Your task to perform on an android device: turn off priority inbox in the gmail app Image 0: 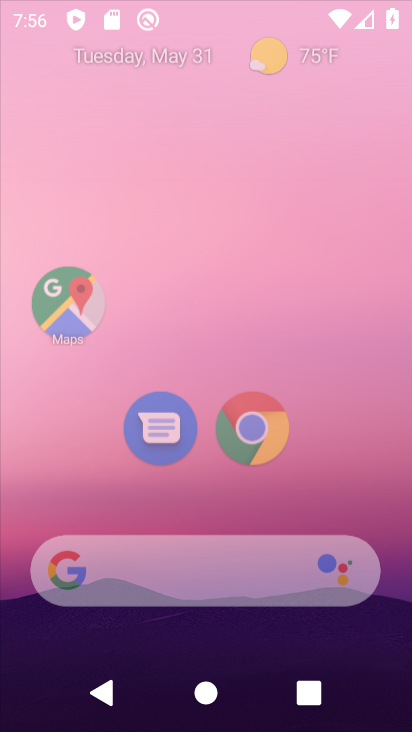
Step 0: drag from (210, 264) to (234, 79)
Your task to perform on an android device: turn off priority inbox in the gmail app Image 1: 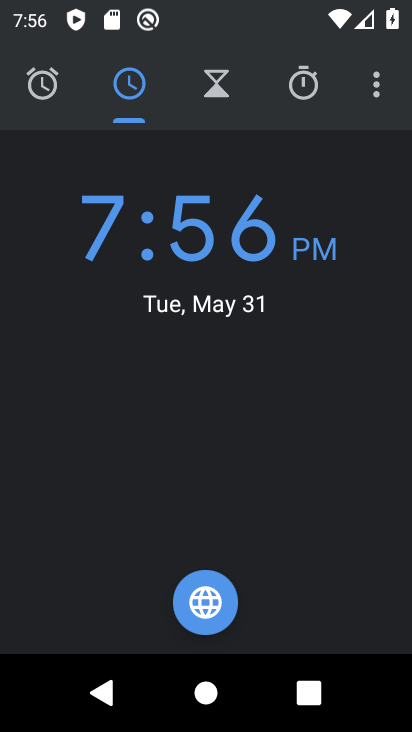
Step 1: press home button
Your task to perform on an android device: turn off priority inbox in the gmail app Image 2: 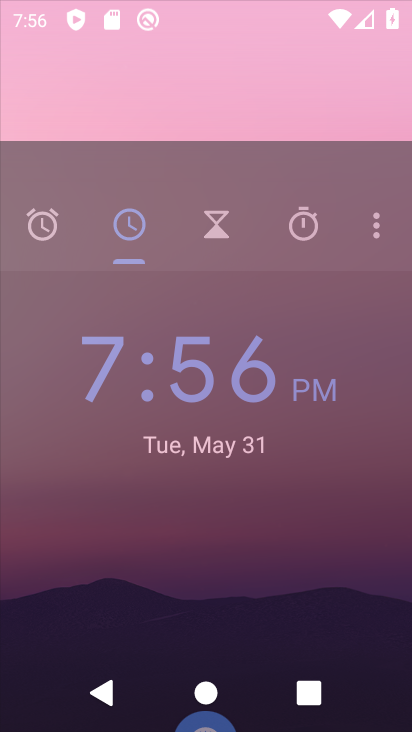
Step 2: drag from (228, 573) to (277, 81)
Your task to perform on an android device: turn off priority inbox in the gmail app Image 3: 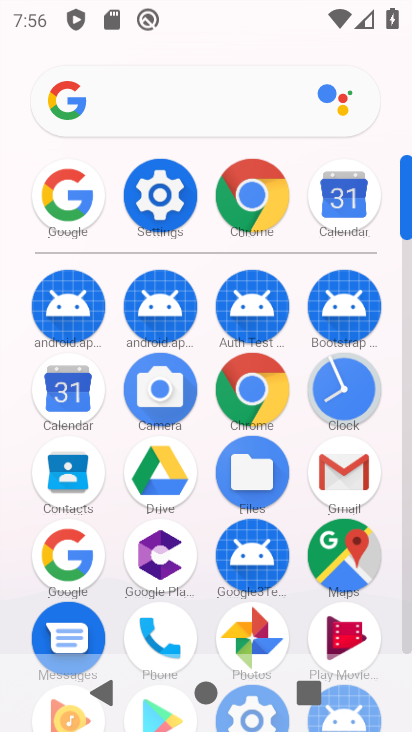
Step 3: click (335, 468)
Your task to perform on an android device: turn off priority inbox in the gmail app Image 4: 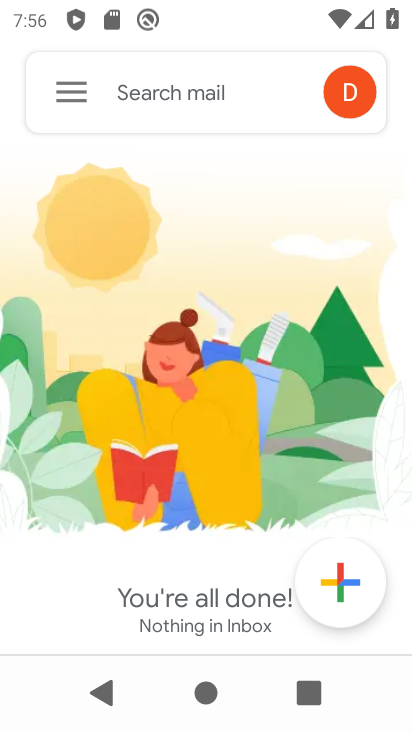
Step 4: drag from (187, 576) to (237, 246)
Your task to perform on an android device: turn off priority inbox in the gmail app Image 5: 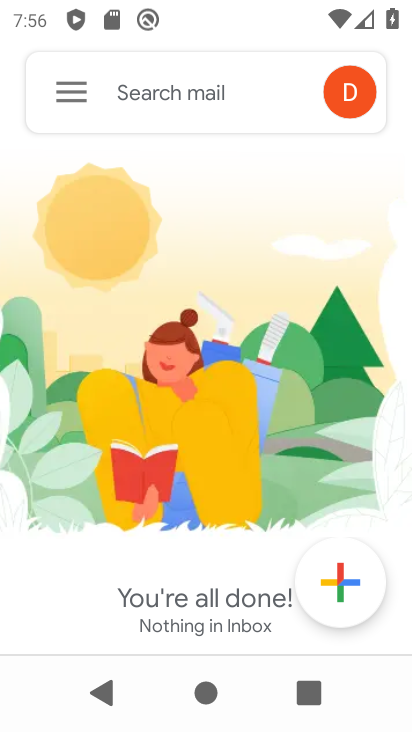
Step 5: click (67, 84)
Your task to perform on an android device: turn off priority inbox in the gmail app Image 6: 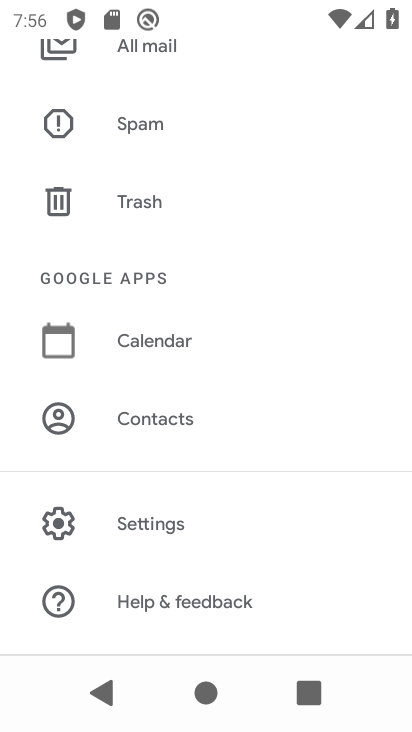
Step 6: click (160, 515)
Your task to perform on an android device: turn off priority inbox in the gmail app Image 7: 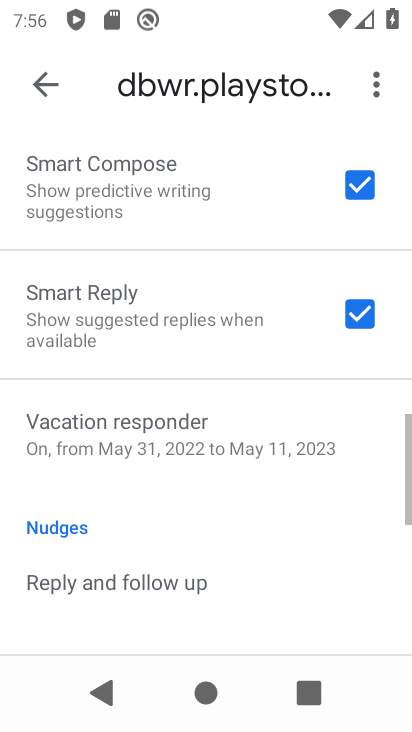
Step 7: drag from (169, 291) to (242, 726)
Your task to perform on an android device: turn off priority inbox in the gmail app Image 8: 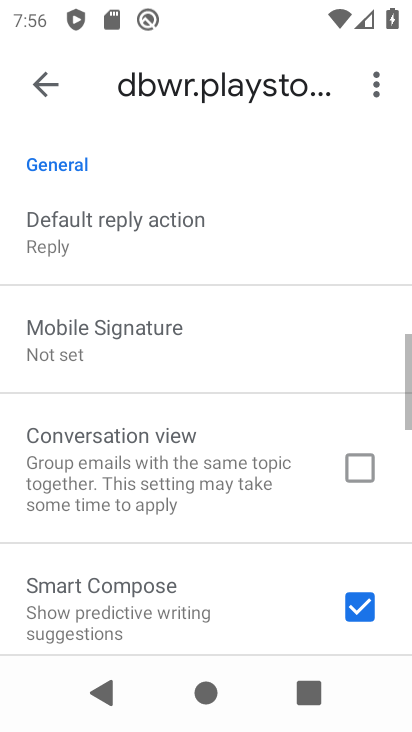
Step 8: drag from (166, 274) to (351, 707)
Your task to perform on an android device: turn off priority inbox in the gmail app Image 9: 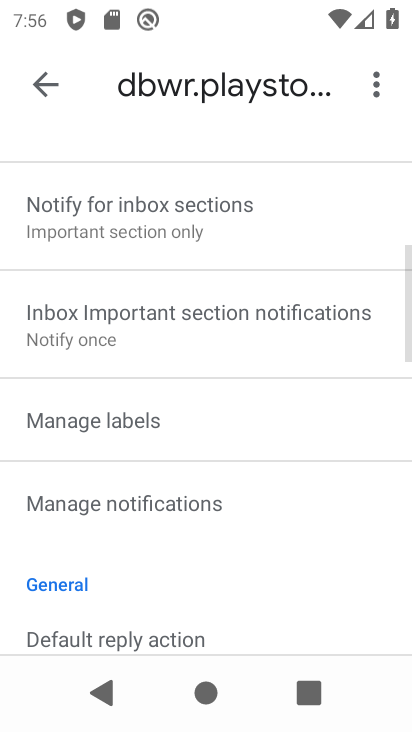
Step 9: drag from (182, 342) to (394, 645)
Your task to perform on an android device: turn off priority inbox in the gmail app Image 10: 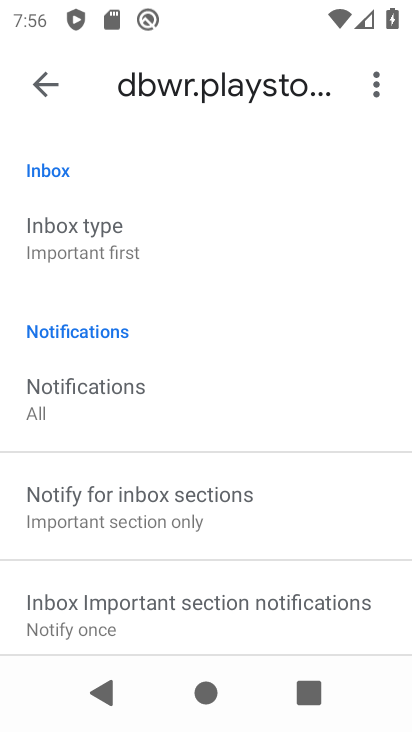
Step 10: drag from (156, 300) to (382, 727)
Your task to perform on an android device: turn off priority inbox in the gmail app Image 11: 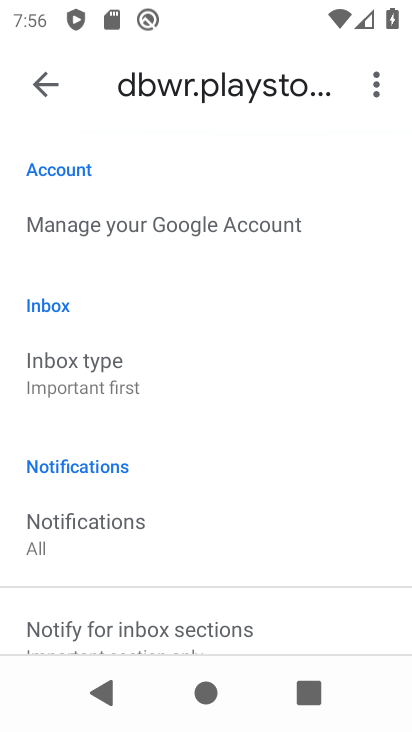
Step 11: click (139, 380)
Your task to perform on an android device: turn off priority inbox in the gmail app Image 12: 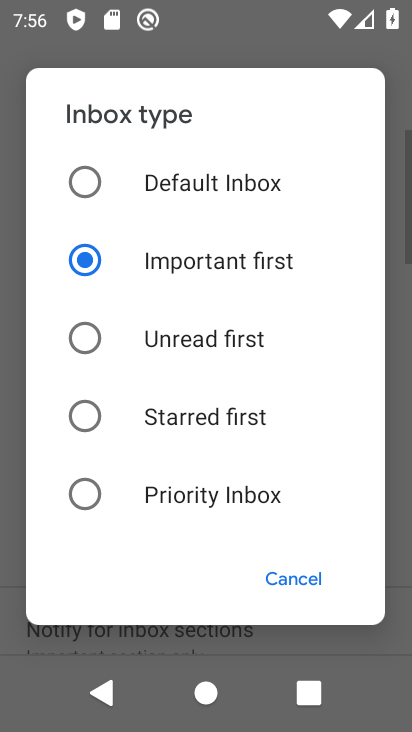
Step 12: click (205, 488)
Your task to perform on an android device: turn off priority inbox in the gmail app Image 13: 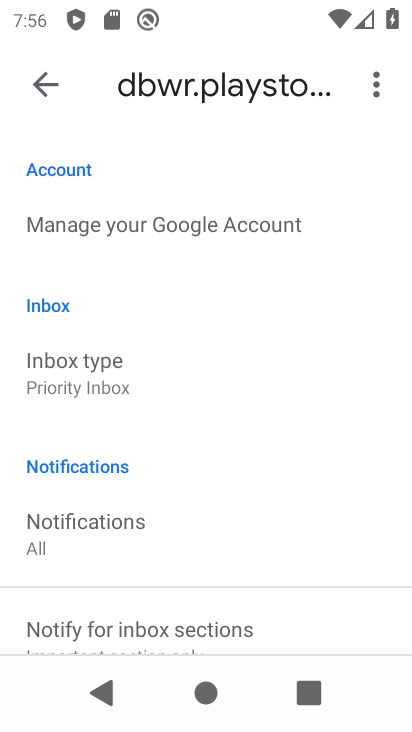
Step 13: drag from (207, 608) to (353, 245)
Your task to perform on an android device: turn off priority inbox in the gmail app Image 14: 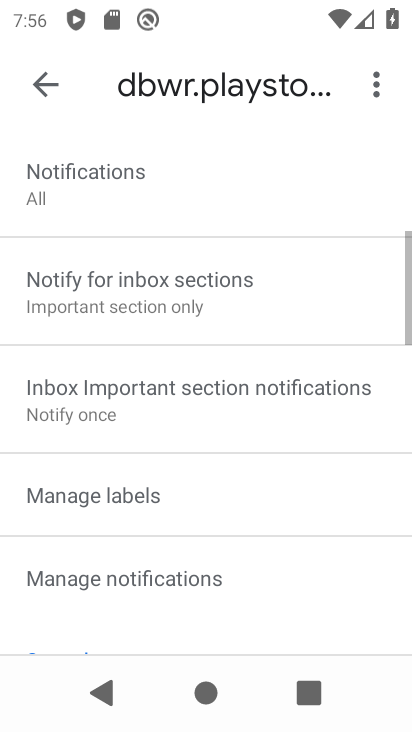
Step 14: drag from (203, 240) to (311, 687)
Your task to perform on an android device: turn off priority inbox in the gmail app Image 15: 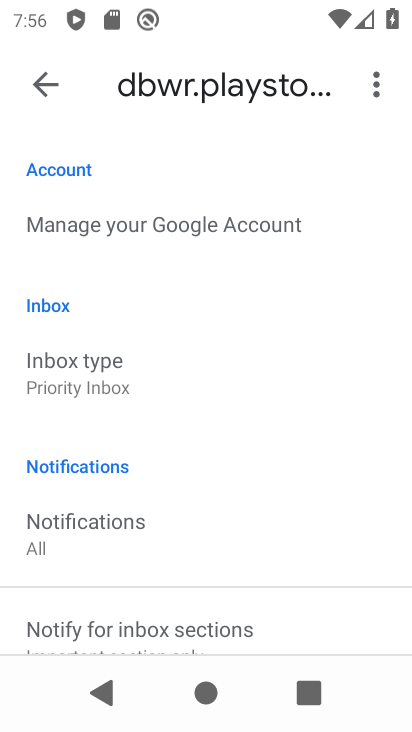
Step 15: click (109, 363)
Your task to perform on an android device: turn off priority inbox in the gmail app Image 16: 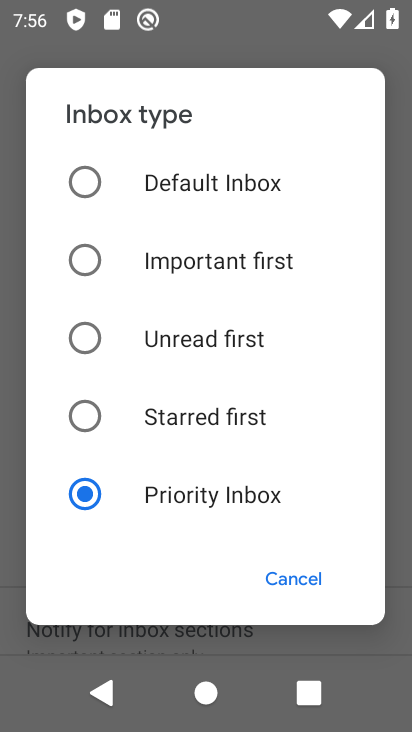
Step 16: click (221, 188)
Your task to perform on an android device: turn off priority inbox in the gmail app Image 17: 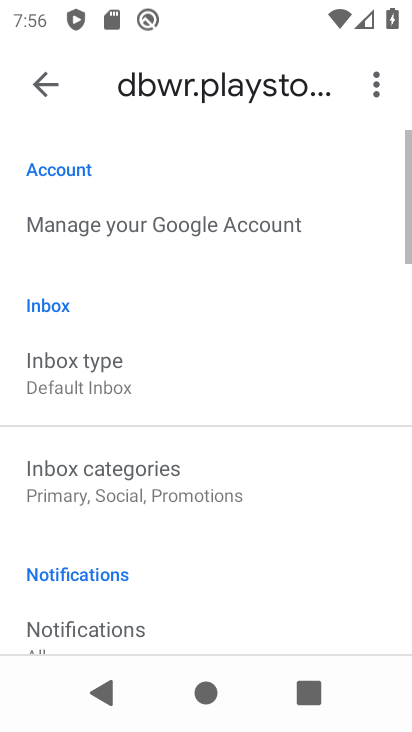
Step 17: task complete